Your task to perform on an android device: Search for seafood restaurants on Google Maps Image 0: 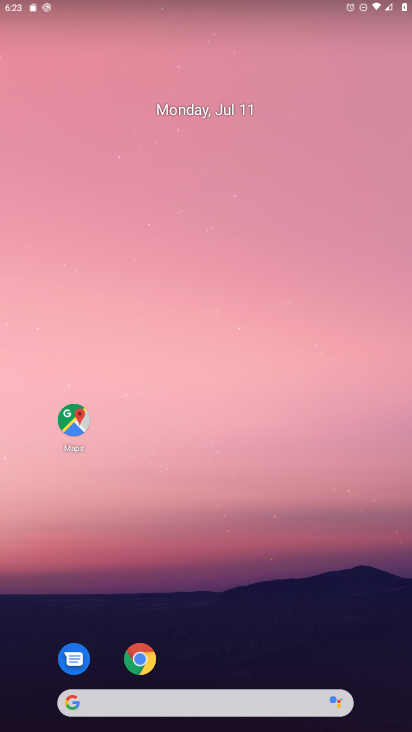
Step 0: click (73, 421)
Your task to perform on an android device: Search for seafood restaurants on Google Maps Image 1: 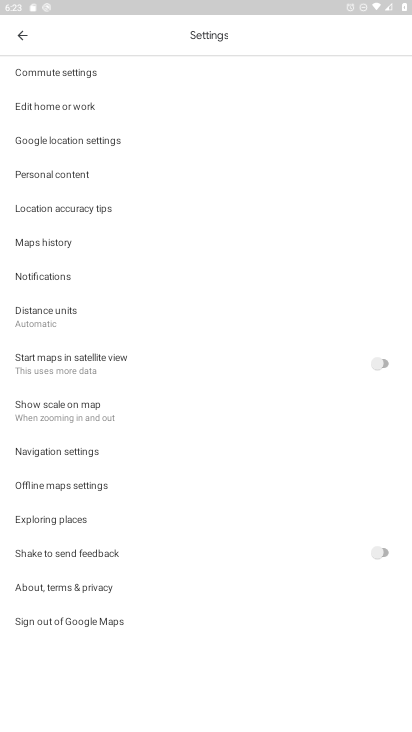
Step 1: press back button
Your task to perform on an android device: Search for seafood restaurants on Google Maps Image 2: 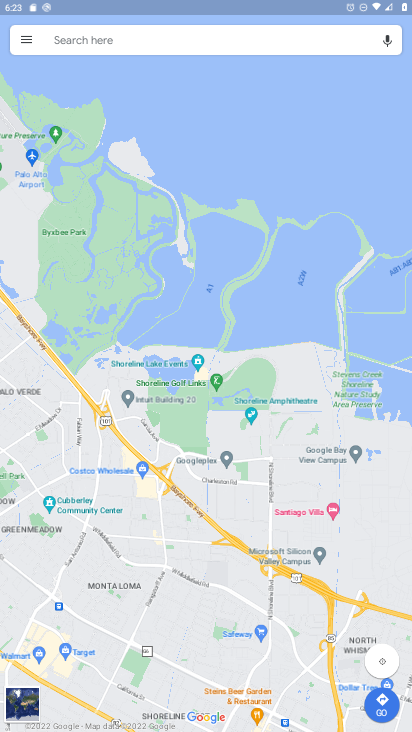
Step 2: click (140, 45)
Your task to perform on an android device: Search for seafood restaurants on Google Maps Image 3: 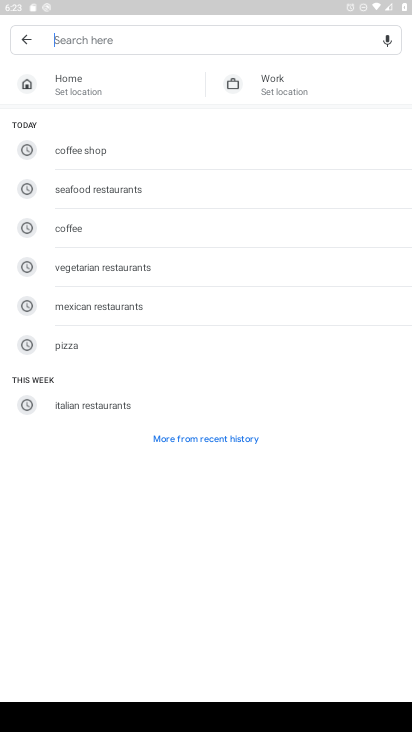
Step 3: type "seafood restaurants"
Your task to perform on an android device: Search for seafood restaurants on Google Maps Image 4: 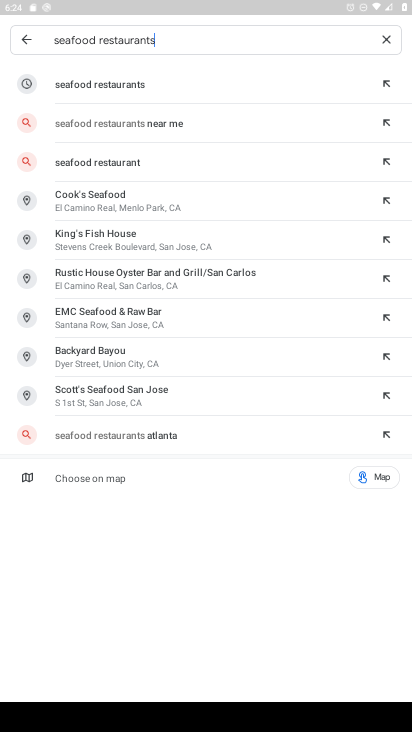
Step 4: click (92, 90)
Your task to perform on an android device: Search for seafood restaurants on Google Maps Image 5: 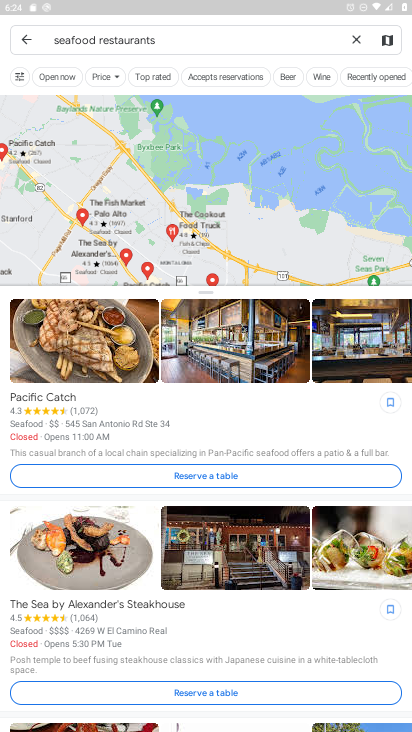
Step 5: task complete